Your task to perform on an android device: open a bookmark in the chrome app Image 0: 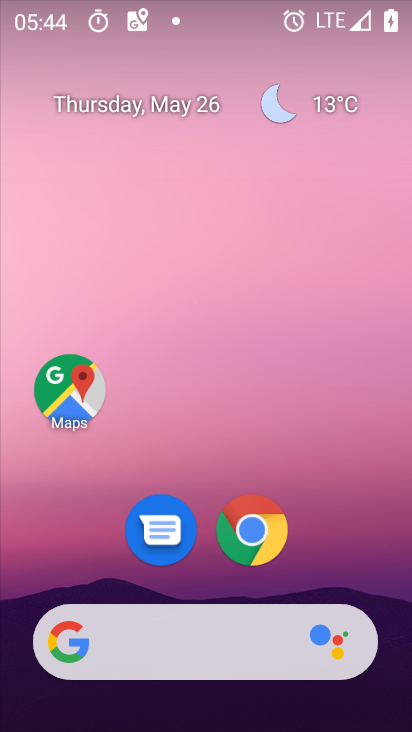
Step 0: drag from (333, 494) to (390, 72)
Your task to perform on an android device: open a bookmark in the chrome app Image 1: 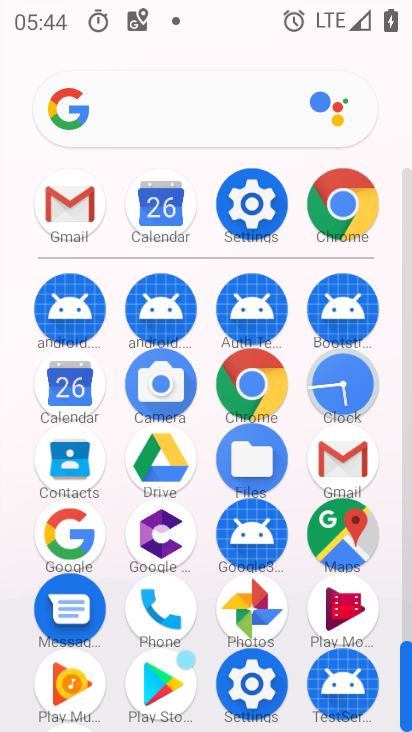
Step 1: click (265, 381)
Your task to perform on an android device: open a bookmark in the chrome app Image 2: 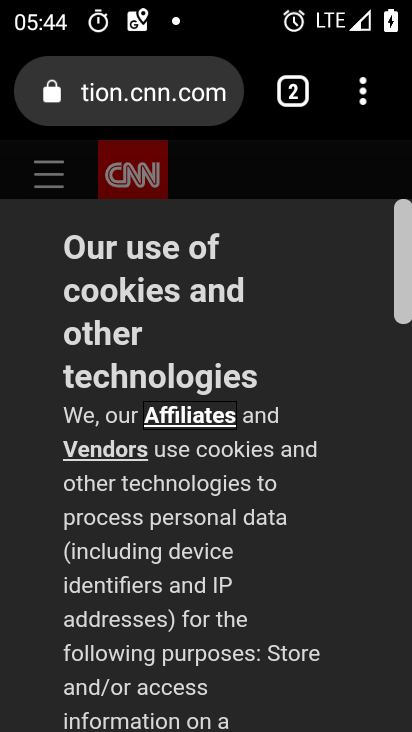
Step 2: task complete